Your task to perform on an android device: turn off javascript in the chrome app Image 0: 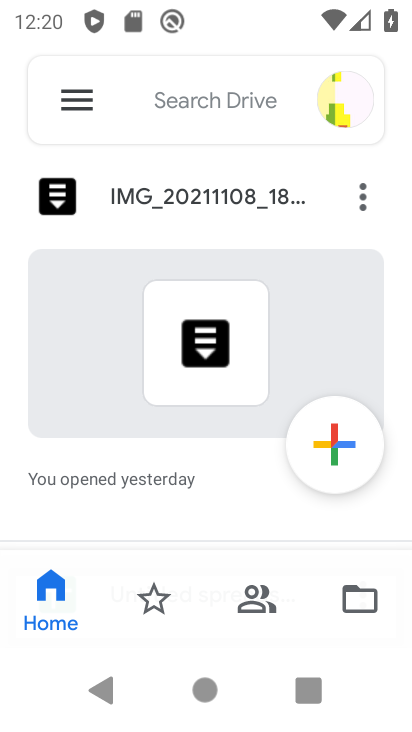
Step 0: press home button
Your task to perform on an android device: turn off javascript in the chrome app Image 1: 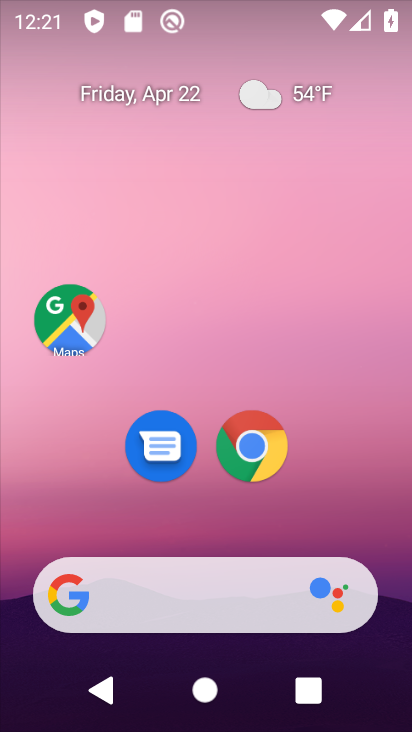
Step 1: click (262, 452)
Your task to perform on an android device: turn off javascript in the chrome app Image 2: 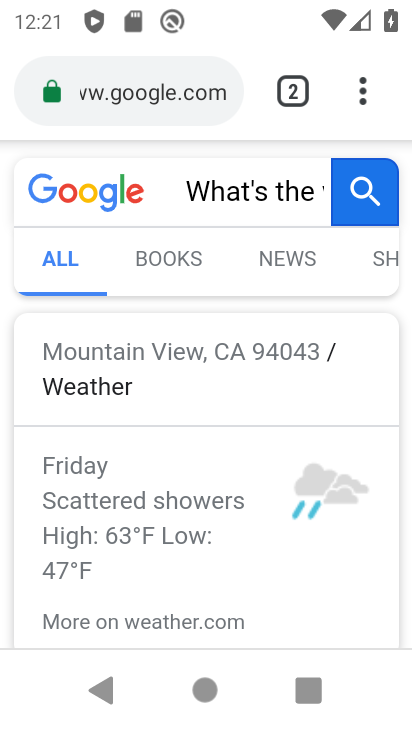
Step 2: drag from (364, 99) to (230, 465)
Your task to perform on an android device: turn off javascript in the chrome app Image 3: 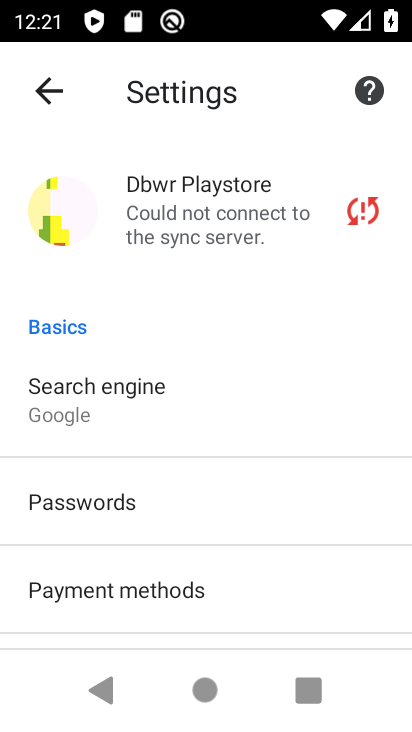
Step 3: drag from (257, 594) to (234, 177)
Your task to perform on an android device: turn off javascript in the chrome app Image 4: 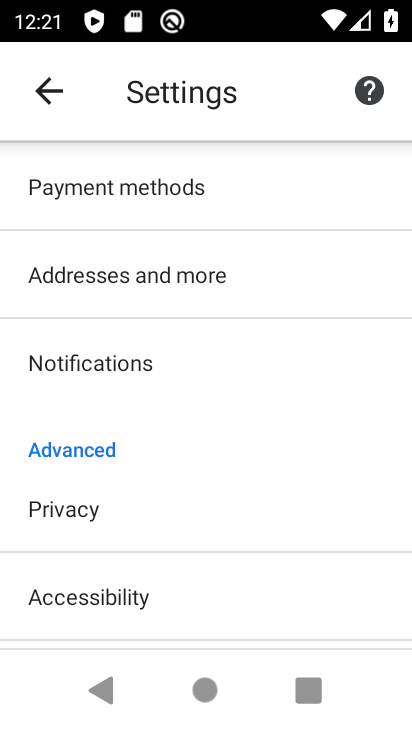
Step 4: drag from (259, 509) to (245, 199)
Your task to perform on an android device: turn off javascript in the chrome app Image 5: 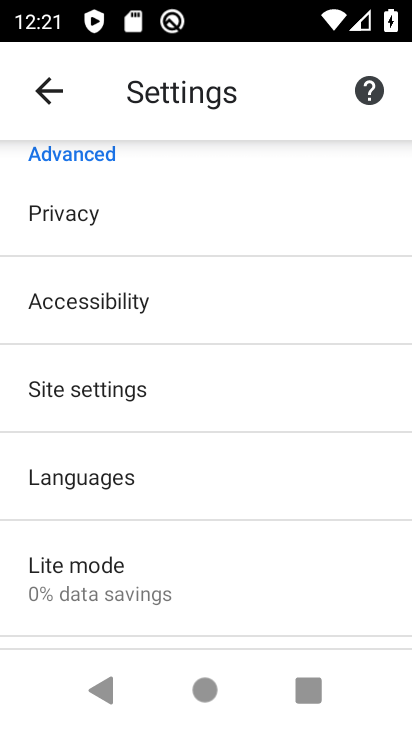
Step 5: click (234, 381)
Your task to perform on an android device: turn off javascript in the chrome app Image 6: 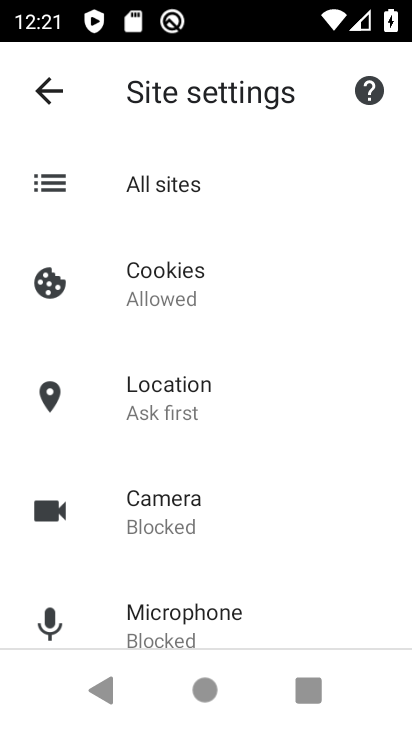
Step 6: drag from (257, 548) to (253, 263)
Your task to perform on an android device: turn off javascript in the chrome app Image 7: 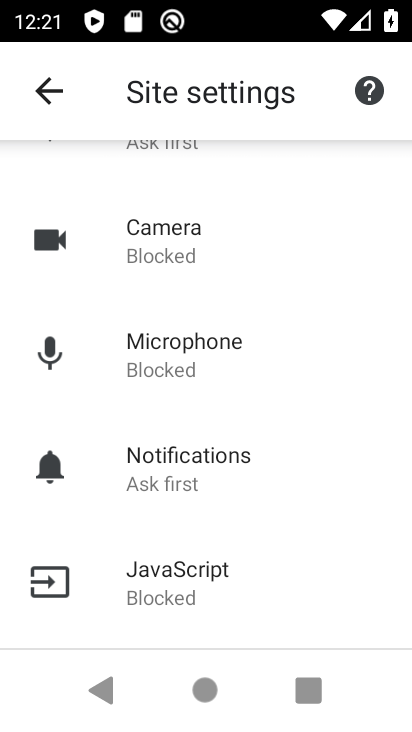
Step 7: click (245, 569)
Your task to perform on an android device: turn off javascript in the chrome app Image 8: 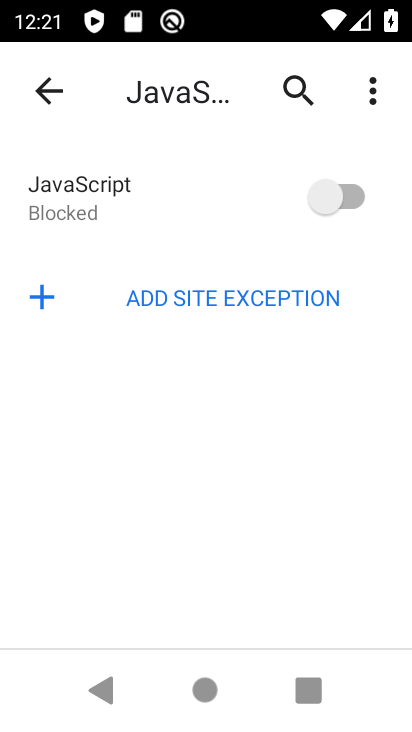
Step 8: task complete